Your task to perform on an android device: Open calendar and show me the second week of next month Image 0: 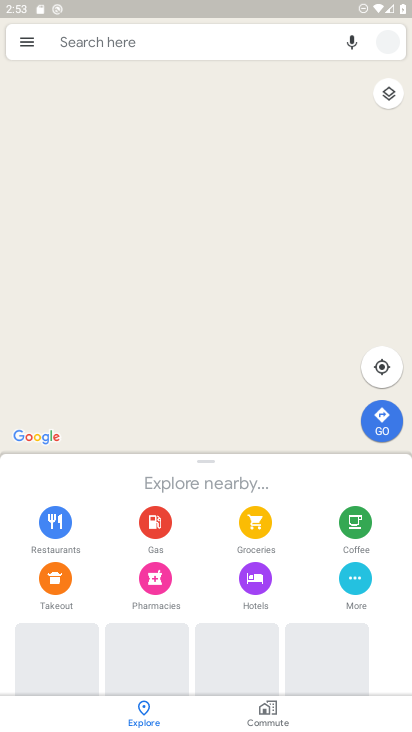
Step 0: press home button
Your task to perform on an android device: Open calendar and show me the second week of next month Image 1: 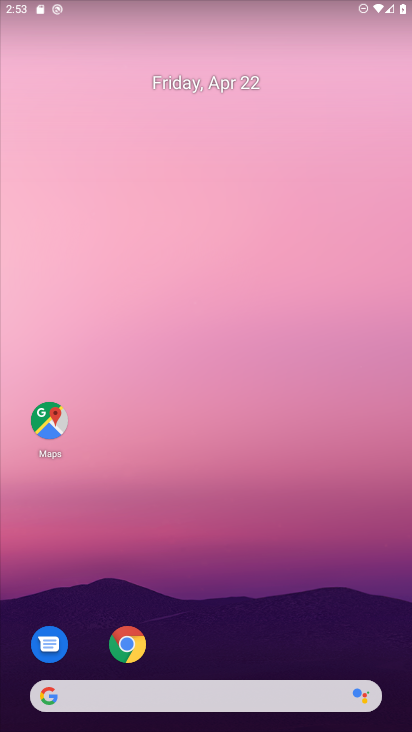
Step 1: drag from (296, 616) to (302, 330)
Your task to perform on an android device: Open calendar and show me the second week of next month Image 2: 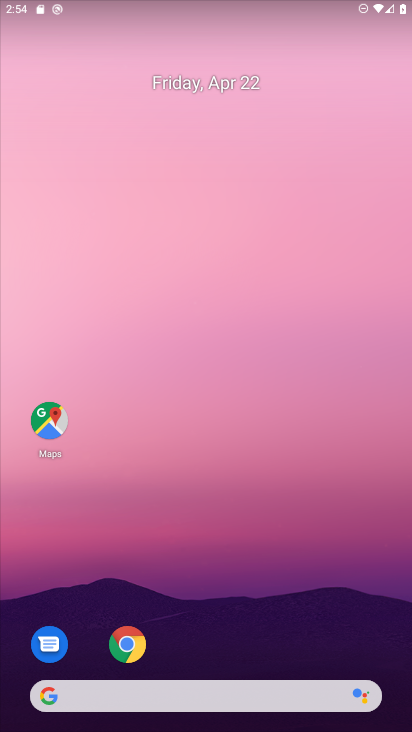
Step 2: drag from (304, 392) to (286, 174)
Your task to perform on an android device: Open calendar and show me the second week of next month Image 3: 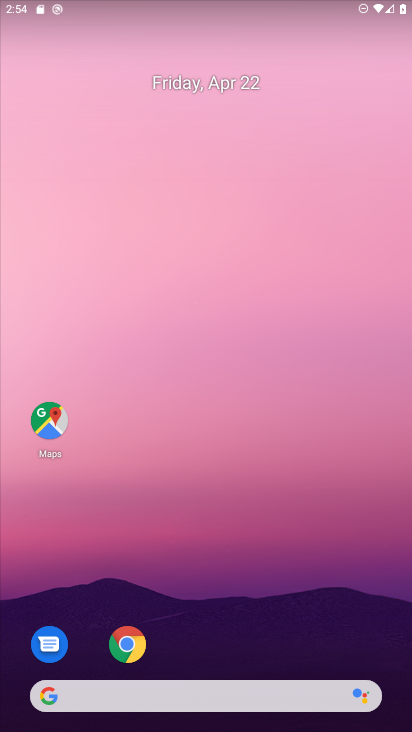
Step 3: drag from (347, 649) to (336, 211)
Your task to perform on an android device: Open calendar and show me the second week of next month Image 4: 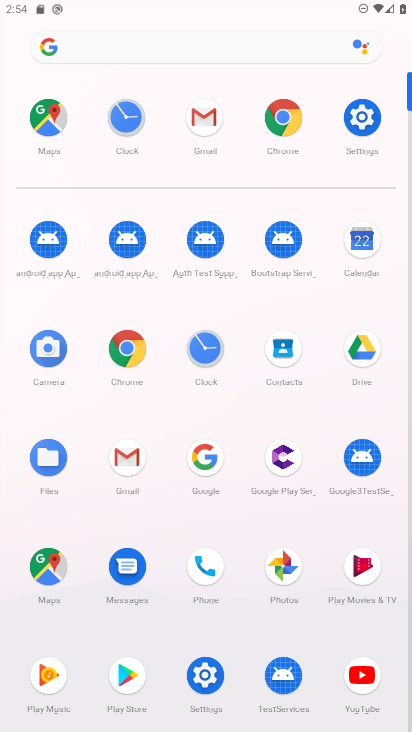
Step 4: click (364, 239)
Your task to perform on an android device: Open calendar and show me the second week of next month Image 5: 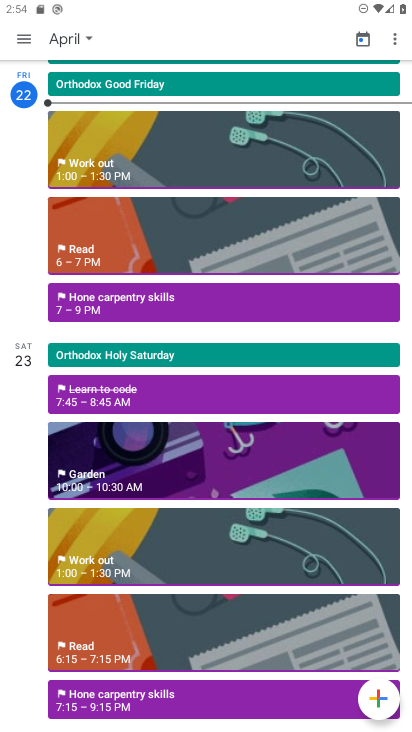
Step 5: click (68, 42)
Your task to perform on an android device: Open calendar and show me the second week of next month Image 6: 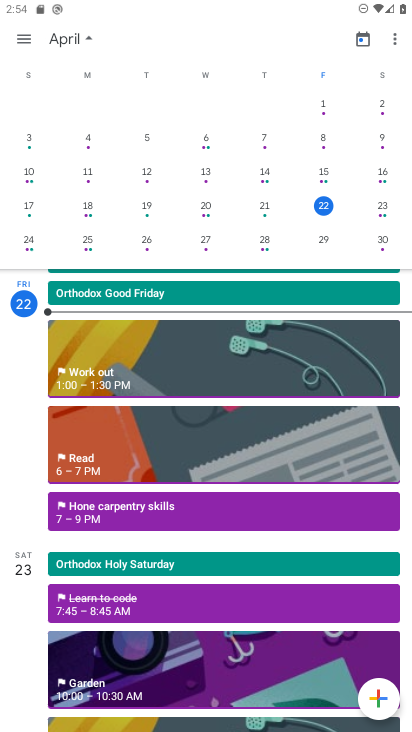
Step 6: drag from (352, 166) to (5, 173)
Your task to perform on an android device: Open calendar and show me the second week of next month Image 7: 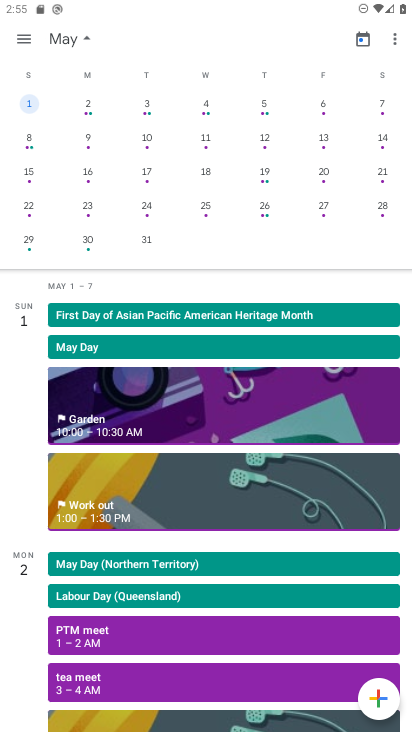
Step 7: click (149, 137)
Your task to perform on an android device: Open calendar and show me the second week of next month Image 8: 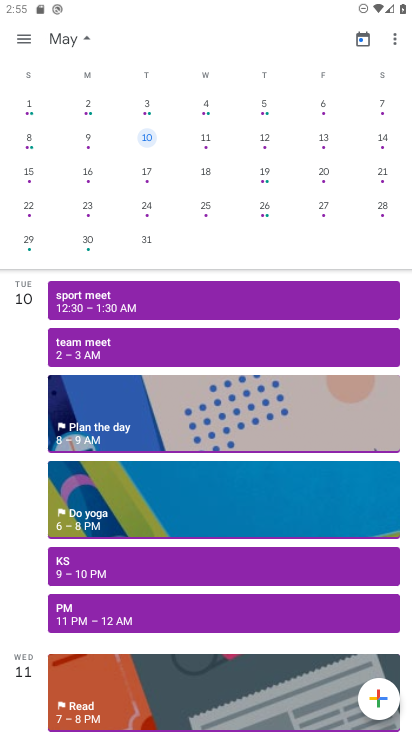
Step 8: task complete